Your task to perform on an android device: Open the Play Movies app and select the watchlist tab. Image 0: 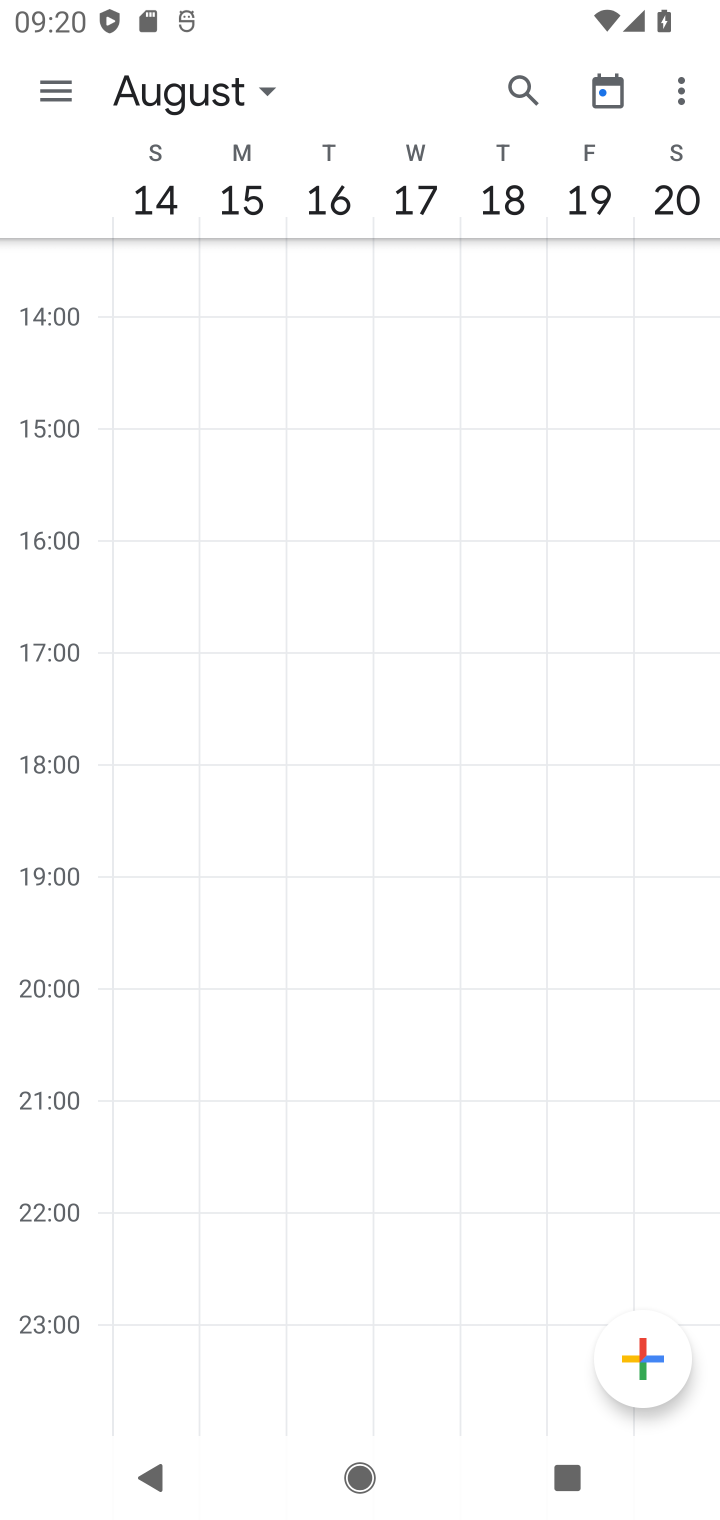
Step 0: press home button
Your task to perform on an android device: Open the Play Movies app and select the watchlist tab. Image 1: 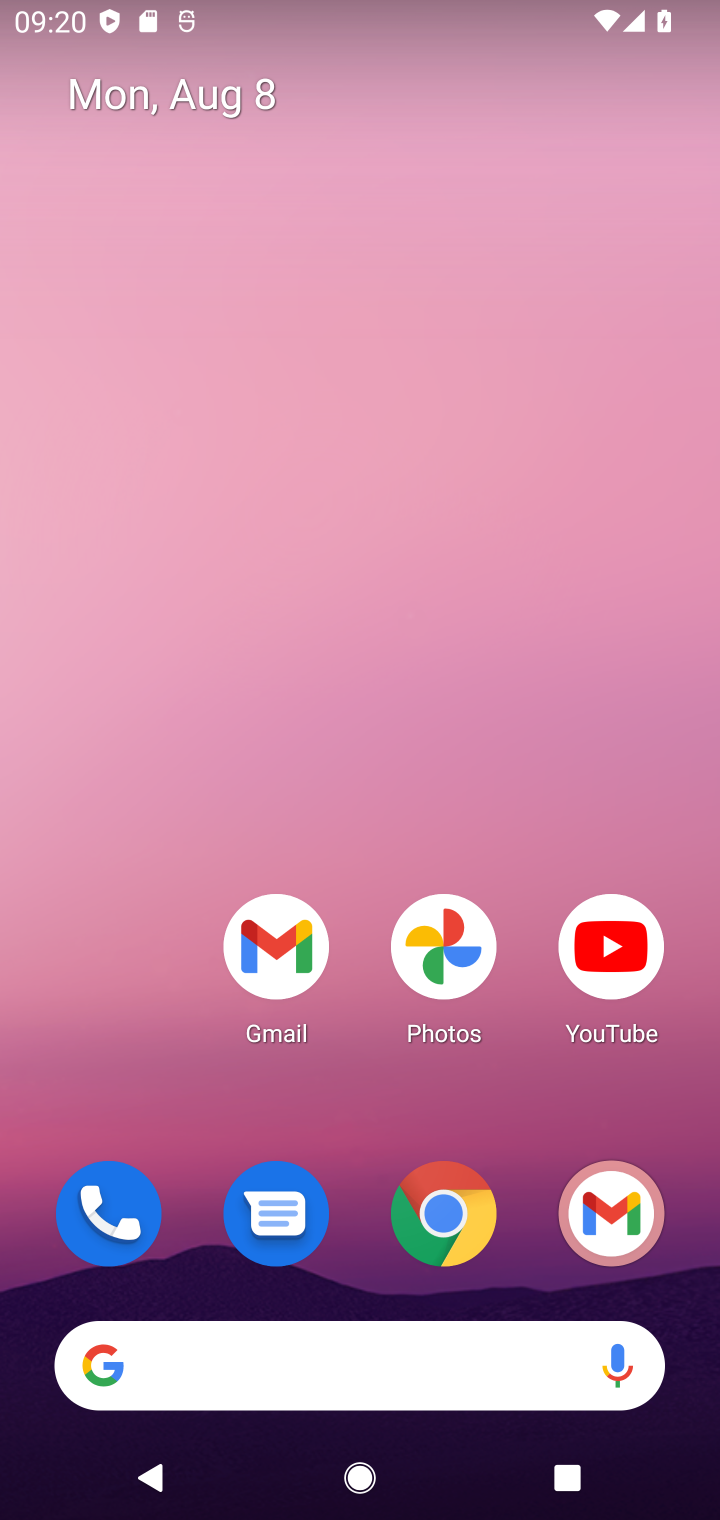
Step 1: task complete